Your task to perform on an android device: Open the map Image 0: 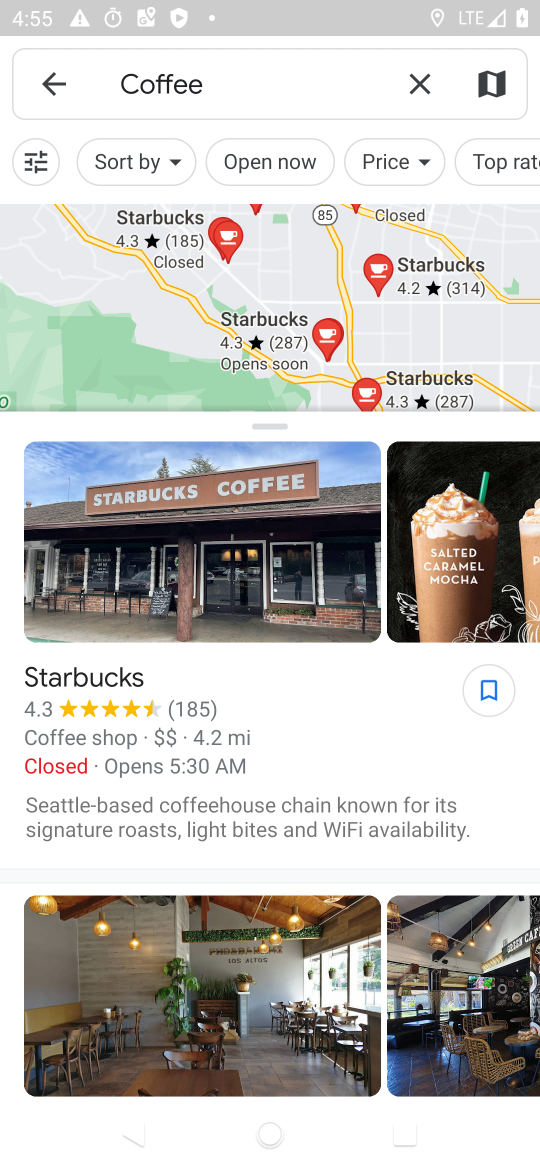
Step 0: task complete